Your task to perform on an android device: Open battery settings Image 0: 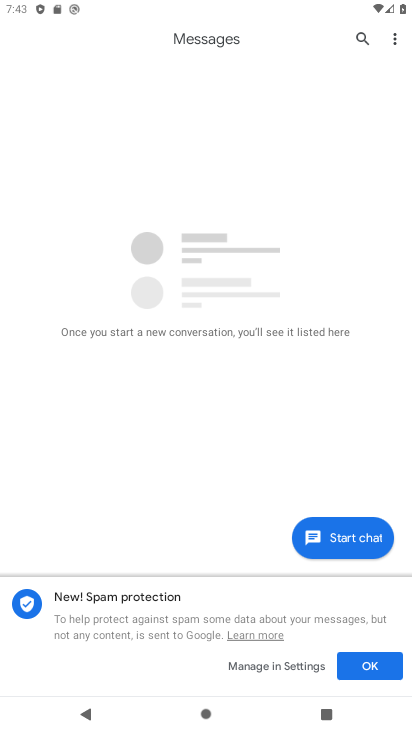
Step 0: press home button
Your task to perform on an android device: Open battery settings Image 1: 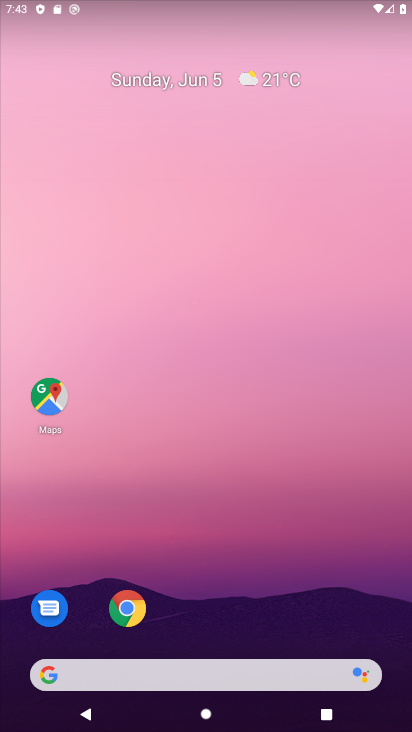
Step 1: drag from (231, 623) to (251, 190)
Your task to perform on an android device: Open battery settings Image 2: 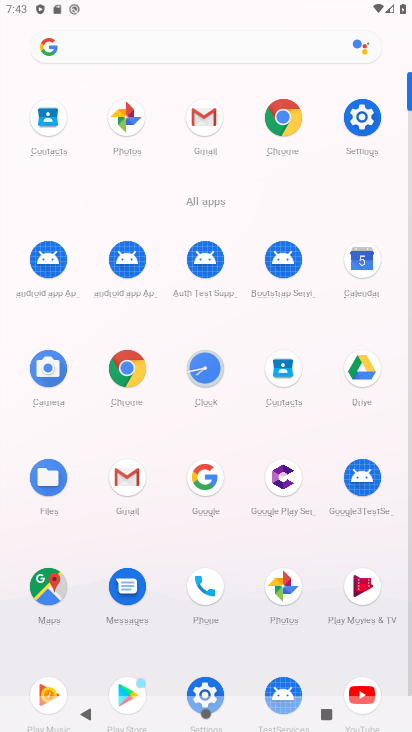
Step 2: click (361, 127)
Your task to perform on an android device: Open battery settings Image 3: 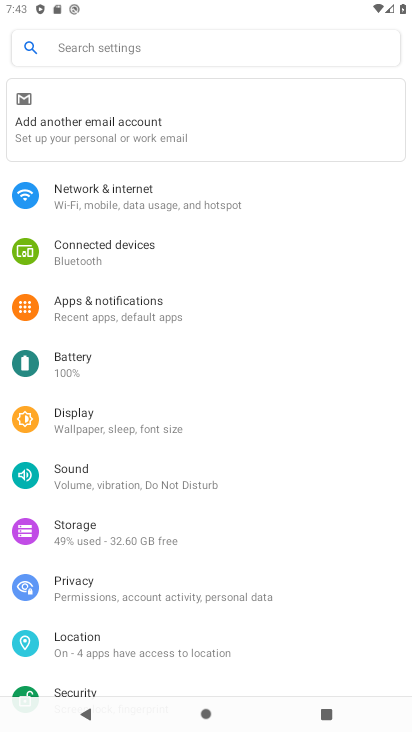
Step 3: click (142, 360)
Your task to perform on an android device: Open battery settings Image 4: 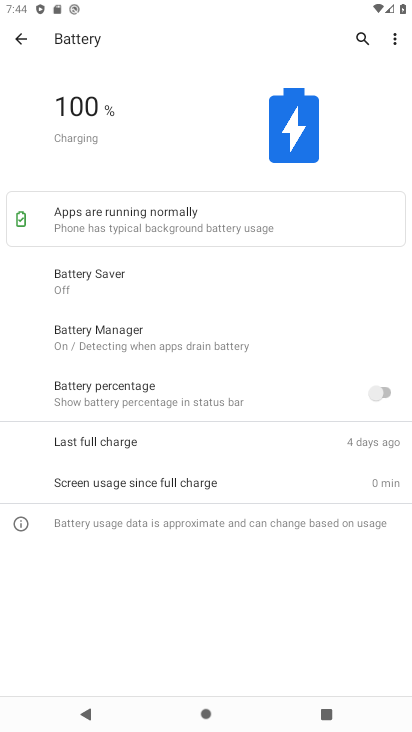
Step 4: task complete